Your task to perform on an android device: Add "apple airpods pro" to the cart on bestbuy, then select checkout. Image 0: 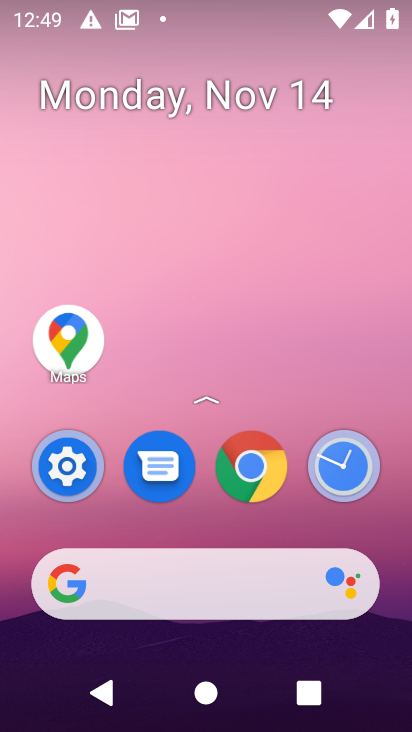
Step 0: click (261, 458)
Your task to perform on an android device: Add "apple airpods pro" to the cart on bestbuy, then select checkout. Image 1: 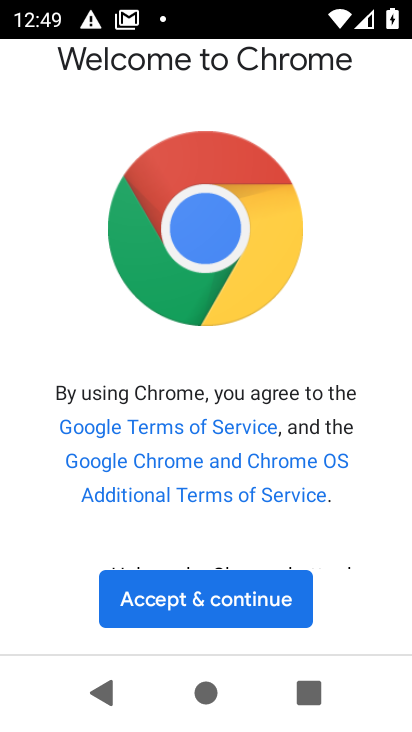
Step 1: click (247, 608)
Your task to perform on an android device: Add "apple airpods pro" to the cart on bestbuy, then select checkout. Image 2: 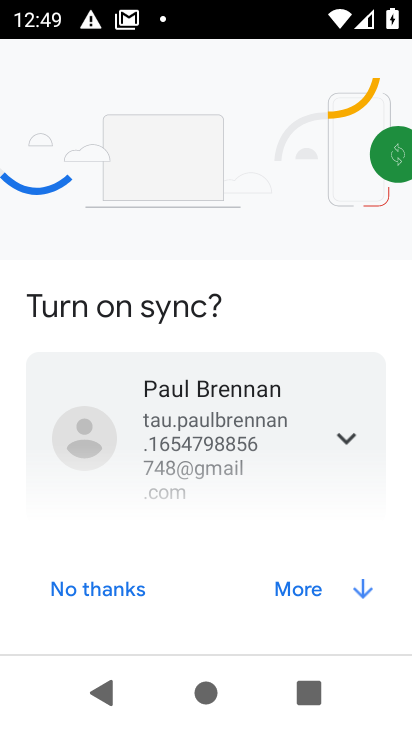
Step 2: click (310, 590)
Your task to perform on an android device: Add "apple airpods pro" to the cart on bestbuy, then select checkout. Image 3: 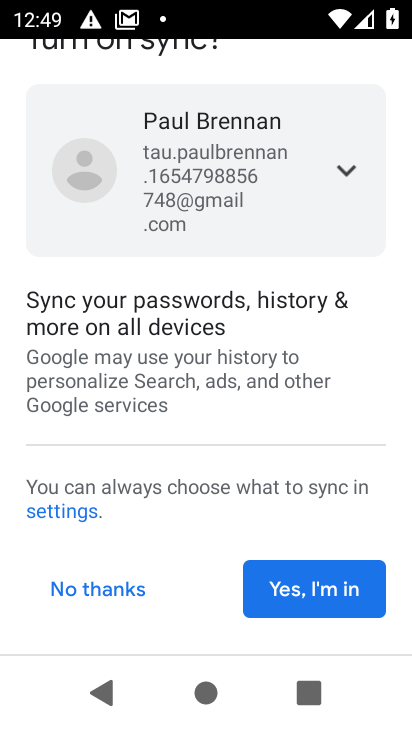
Step 3: click (313, 588)
Your task to perform on an android device: Add "apple airpods pro" to the cart on bestbuy, then select checkout. Image 4: 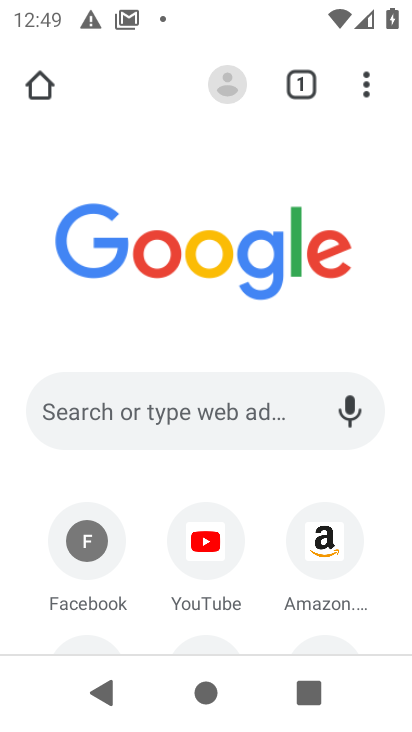
Step 4: click (254, 400)
Your task to perform on an android device: Add "apple airpods pro" to the cart on bestbuy, then select checkout. Image 5: 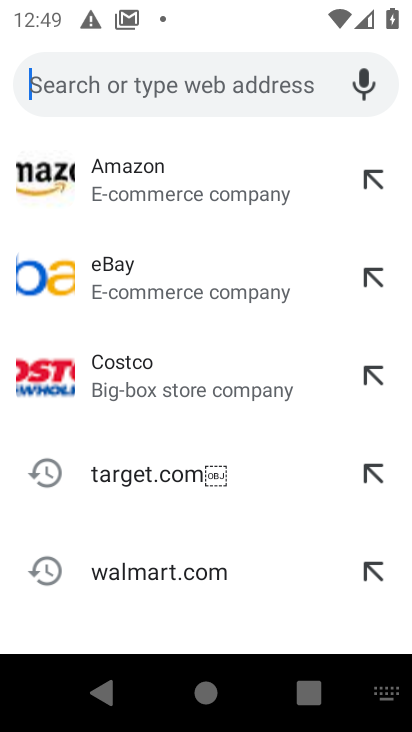
Step 5: type "bestbuy"
Your task to perform on an android device: Add "apple airpods pro" to the cart on bestbuy, then select checkout. Image 6: 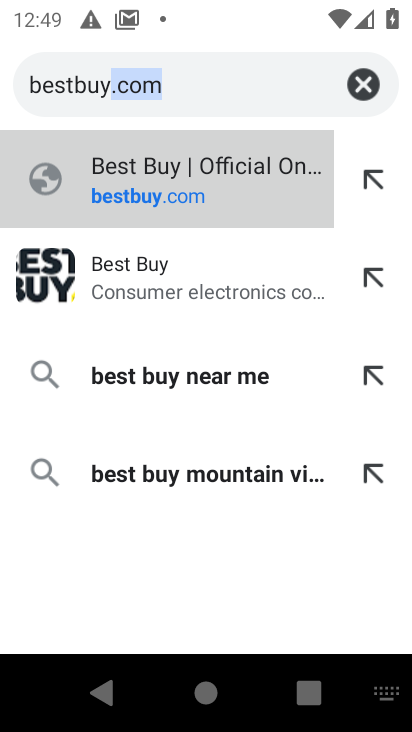
Step 6: press enter
Your task to perform on an android device: Add "apple airpods pro" to the cart on bestbuy, then select checkout. Image 7: 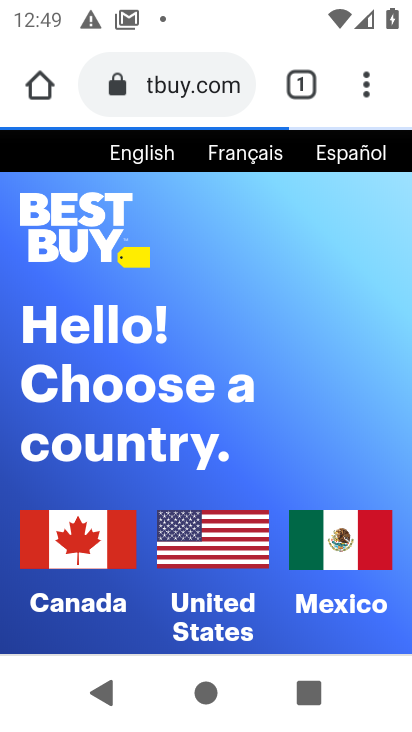
Step 7: click (230, 535)
Your task to perform on an android device: Add "apple airpods pro" to the cart on bestbuy, then select checkout. Image 8: 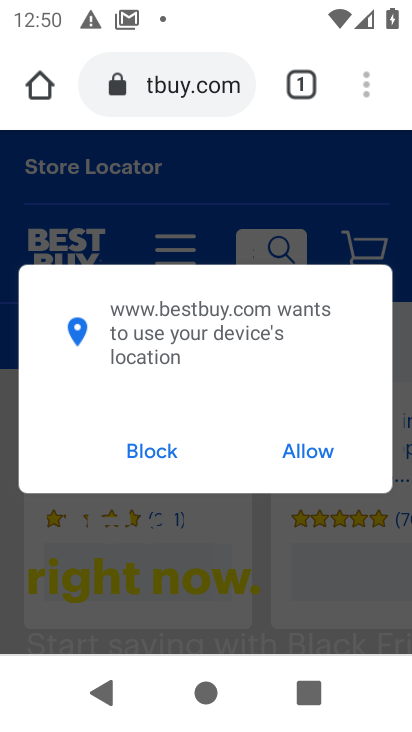
Step 8: click (162, 450)
Your task to perform on an android device: Add "apple airpods pro" to the cart on bestbuy, then select checkout. Image 9: 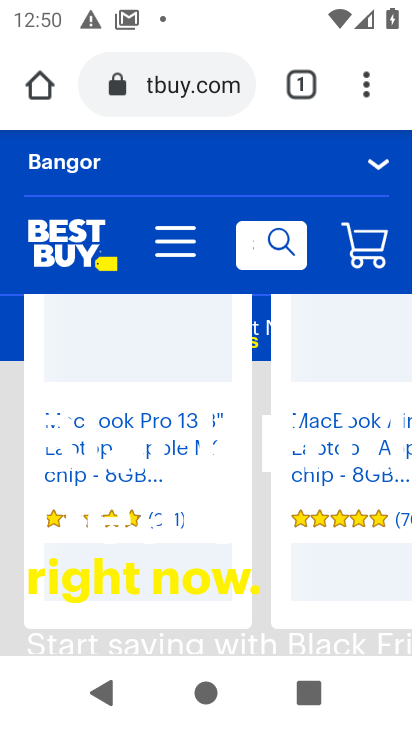
Step 9: click (282, 245)
Your task to perform on an android device: Add "apple airpods pro" to the cart on bestbuy, then select checkout. Image 10: 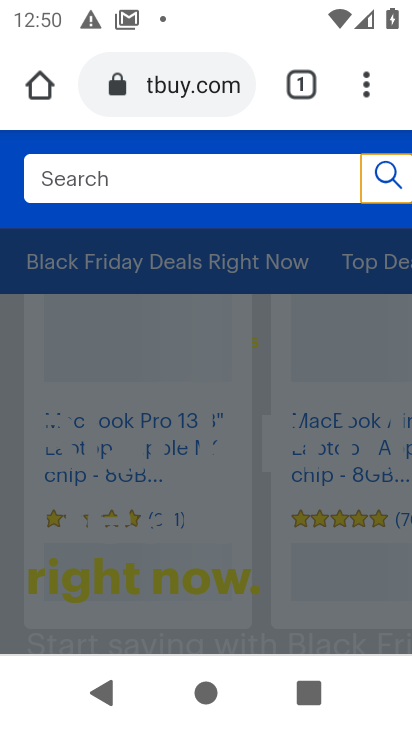
Step 10: type "apple airpods pro"
Your task to perform on an android device: Add "apple airpods pro" to the cart on bestbuy, then select checkout. Image 11: 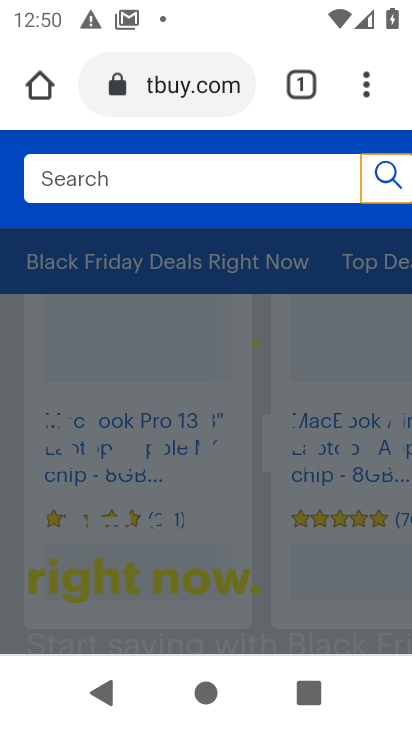
Step 11: press enter
Your task to perform on an android device: Add "apple airpods pro" to the cart on bestbuy, then select checkout. Image 12: 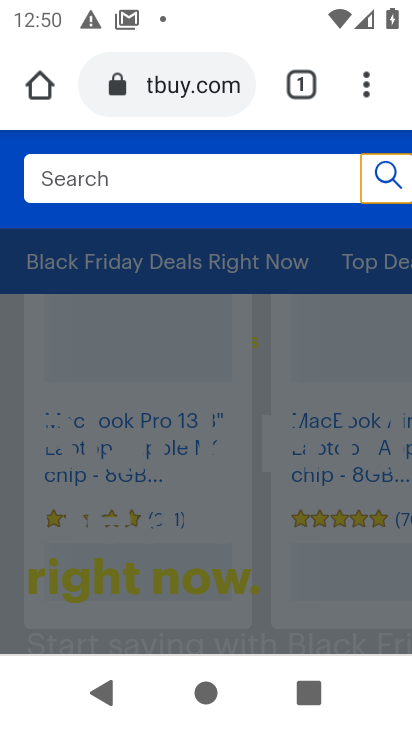
Step 12: click (250, 171)
Your task to perform on an android device: Add "apple airpods pro" to the cart on bestbuy, then select checkout. Image 13: 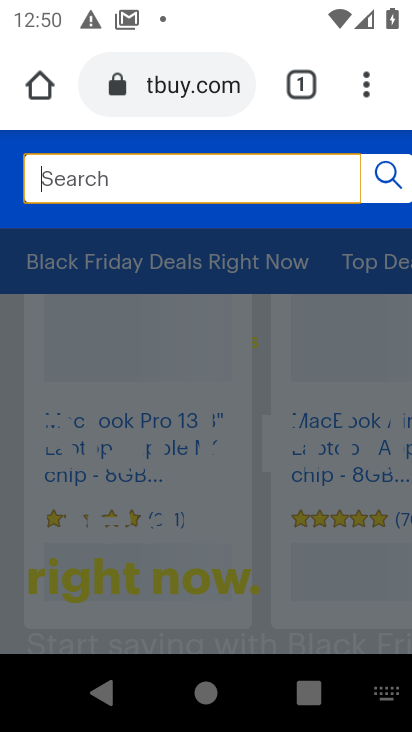
Step 13: type "apple airpods pro"
Your task to perform on an android device: Add "apple airpods pro" to the cart on bestbuy, then select checkout. Image 14: 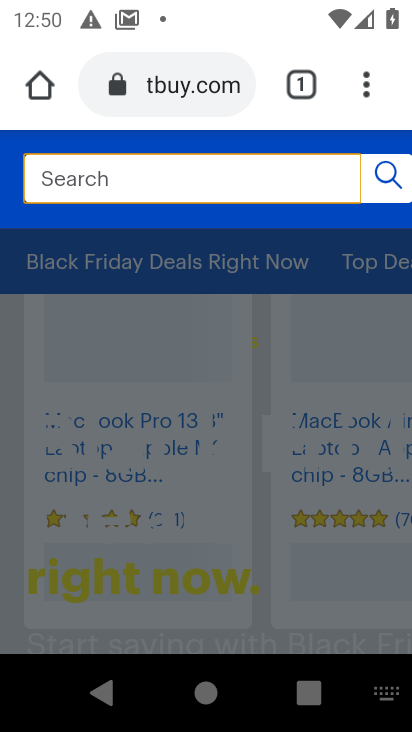
Step 14: press enter
Your task to perform on an android device: Add "apple airpods pro" to the cart on bestbuy, then select checkout. Image 15: 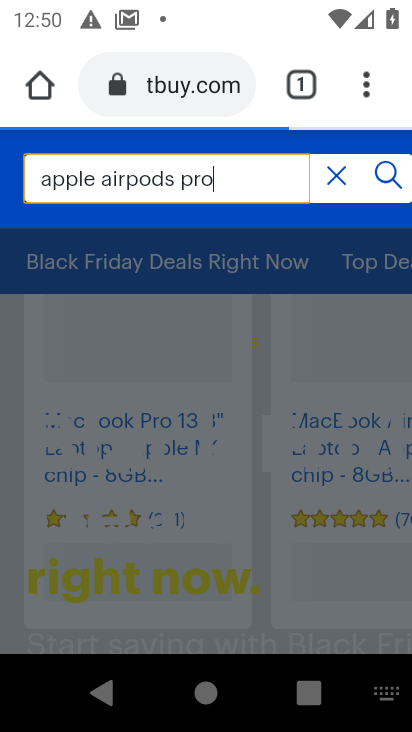
Step 15: click (396, 174)
Your task to perform on an android device: Add "apple airpods pro" to the cart on bestbuy, then select checkout. Image 16: 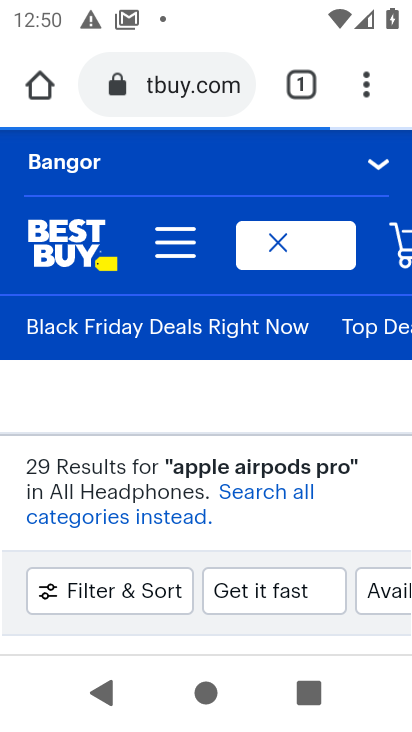
Step 16: drag from (359, 453) to (362, 223)
Your task to perform on an android device: Add "apple airpods pro" to the cart on bestbuy, then select checkout. Image 17: 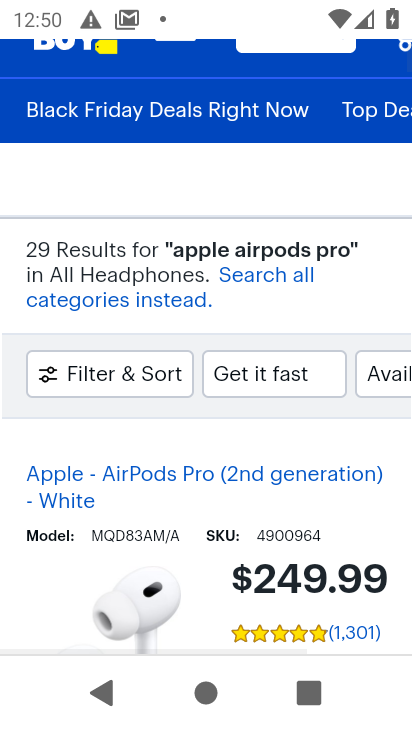
Step 17: drag from (312, 437) to (318, 314)
Your task to perform on an android device: Add "apple airpods pro" to the cart on bestbuy, then select checkout. Image 18: 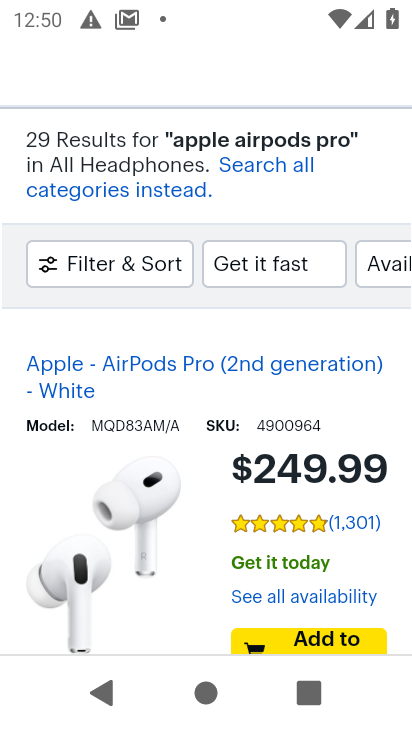
Step 18: click (130, 478)
Your task to perform on an android device: Add "apple airpods pro" to the cart on bestbuy, then select checkout. Image 19: 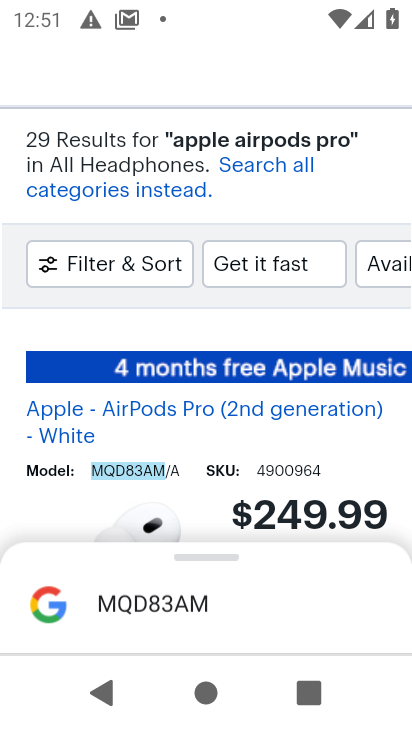
Step 19: drag from (371, 383) to (407, 179)
Your task to perform on an android device: Add "apple airpods pro" to the cart on bestbuy, then select checkout. Image 20: 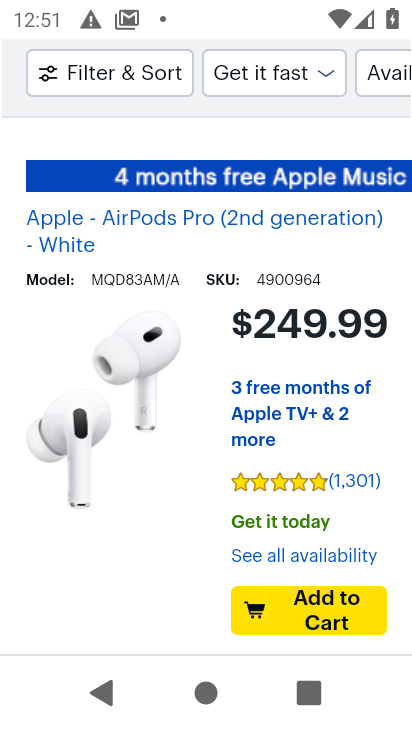
Step 20: click (343, 599)
Your task to perform on an android device: Add "apple airpods pro" to the cart on bestbuy, then select checkout. Image 21: 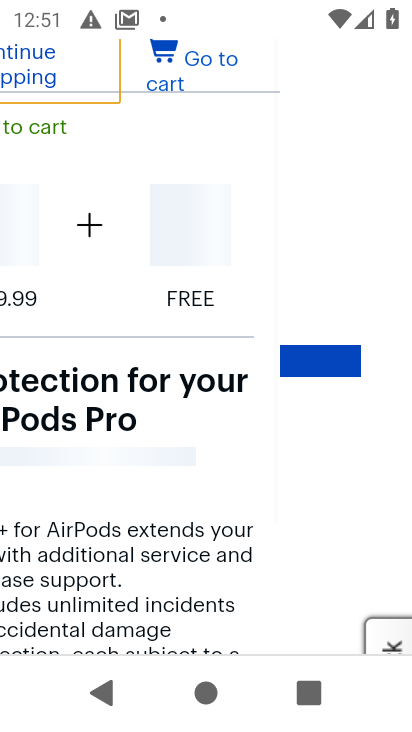
Step 21: drag from (233, 258) to (409, 331)
Your task to perform on an android device: Add "apple airpods pro" to the cart on bestbuy, then select checkout. Image 22: 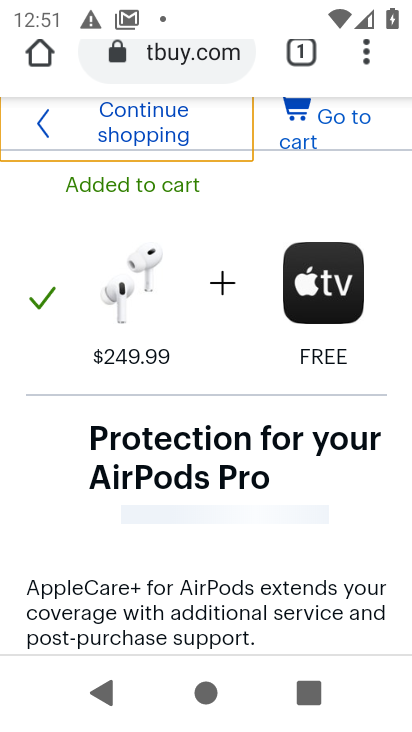
Step 22: drag from (323, 361) to (404, 216)
Your task to perform on an android device: Add "apple airpods pro" to the cart on bestbuy, then select checkout. Image 23: 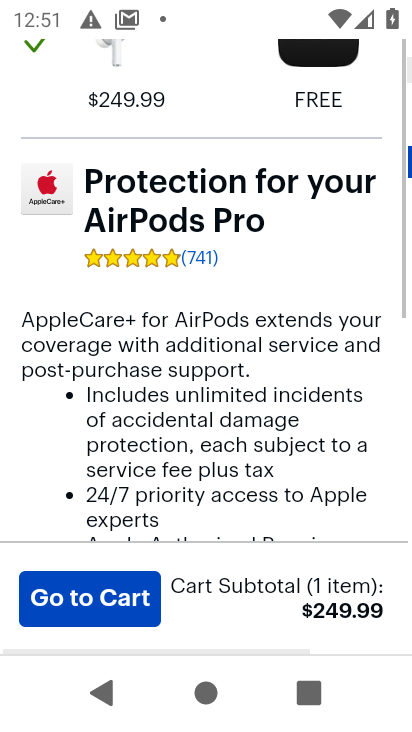
Step 23: click (91, 475)
Your task to perform on an android device: Add "apple airpods pro" to the cart on bestbuy, then select checkout. Image 24: 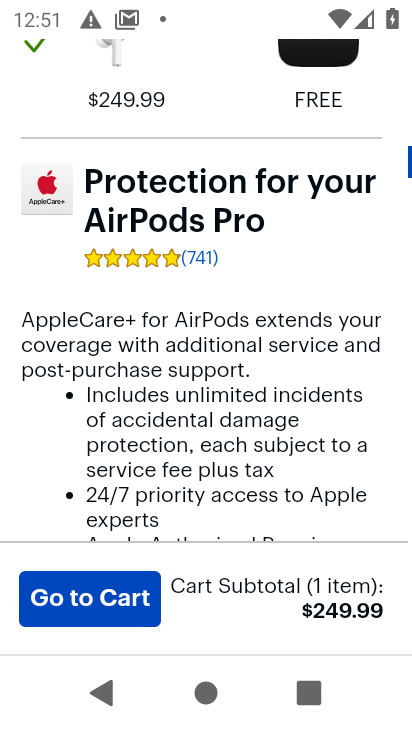
Step 24: click (82, 587)
Your task to perform on an android device: Add "apple airpods pro" to the cart on bestbuy, then select checkout. Image 25: 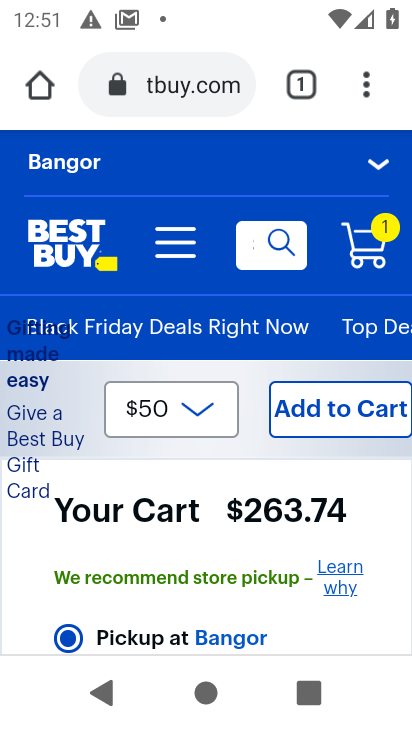
Step 25: drag from (318, 569) to (335, 162)
Your task to perform on an android device: Add "apple airpods pro" to the cart on bestbuy, then select checkout. Image 26: 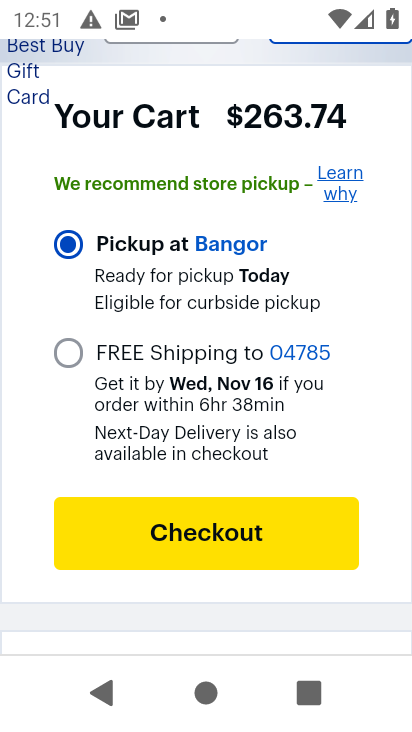
Step 26: click (234, 532)
Your task to perform on an android device: Add "apple airpods pro" to the cart on bestbuy, then select checkout. Image 27: 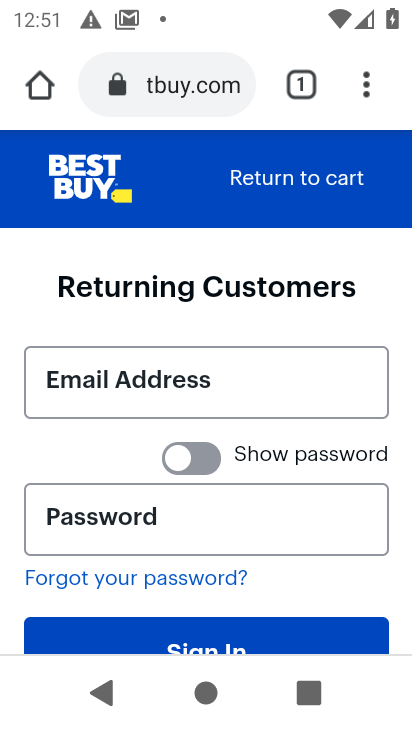
Step 27: task complete